Your task to perform on an android device: move an email to a new category in the gmail app Image 0: 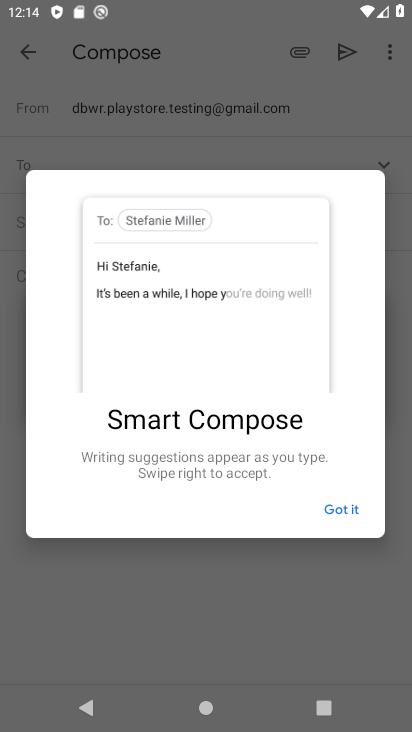
Step 0: press home button
Your task to perform on an android device: move an email to a new category in the gmail app Image 1: 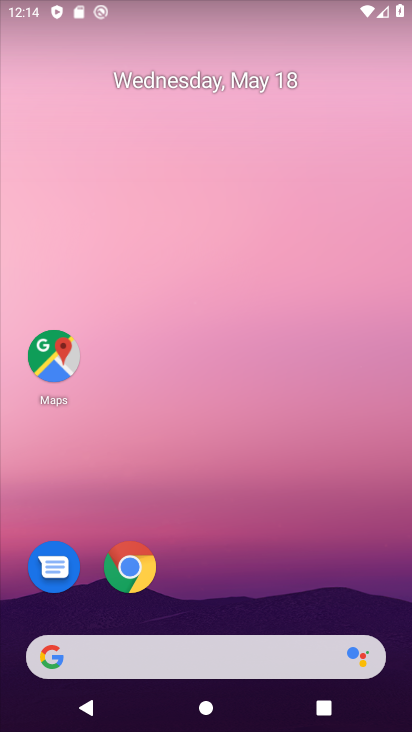
Step 1: drag from (373, 575) to (314, 225)
Your task to perform on an android device: move an email to a new category in the gmail app Image 2: 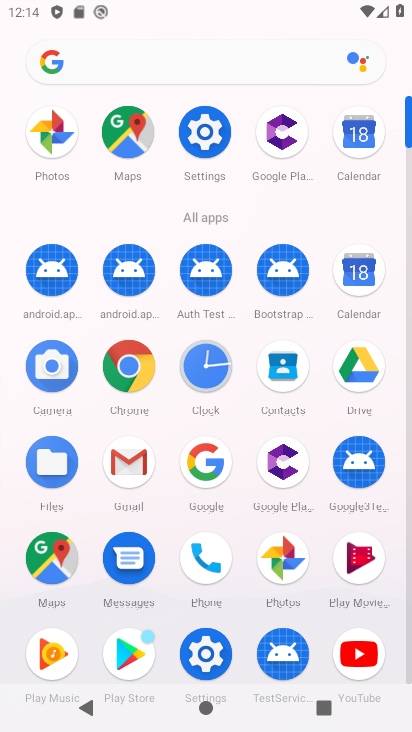
Step 2: click (124, 464)
Your task to perform on an android device: move an email to a new category in the gmail app Image 3: 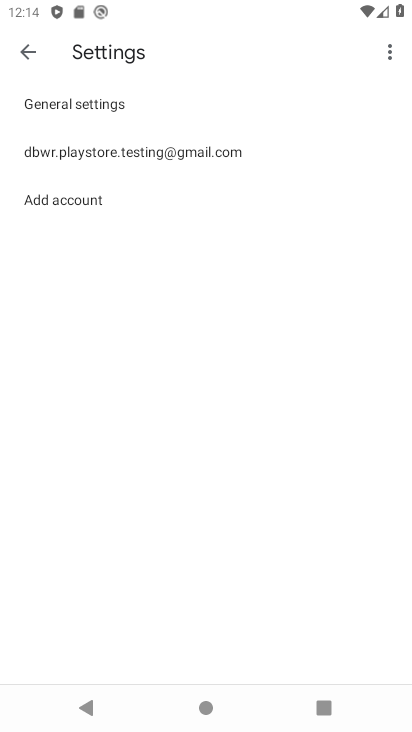
Step 3: click (214, 144)
Your task to perform on an android device: move an email to a new category in the gmail app Image 4: 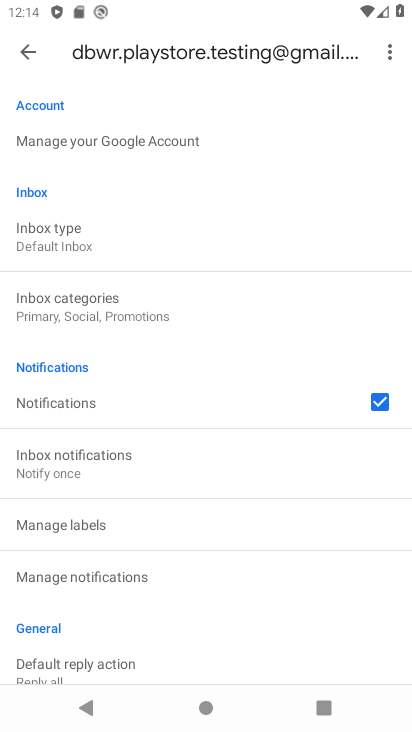
Step 4: click (33, 51)
Your task to perform on an android device: move an email to a new category in the gmail app Image 5: 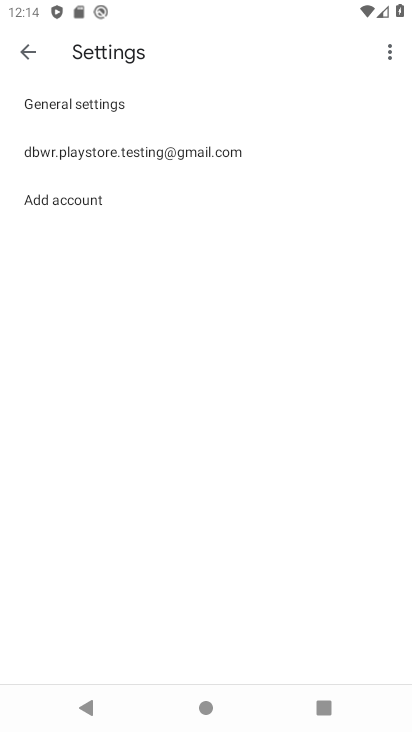
Step 5: click (32, 50)
Your task to perform on an android device: move an email to a new category in the gmail app Image 6: 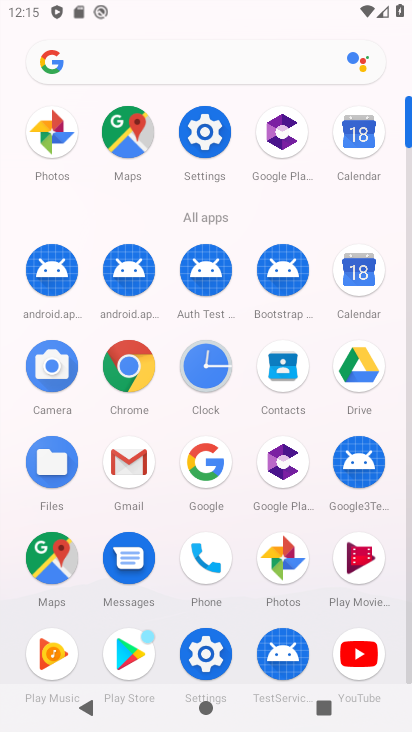
Step 6: click (134, 465)
Your task to perform on an android device: move an email to a new category in the gmail app Image 7: 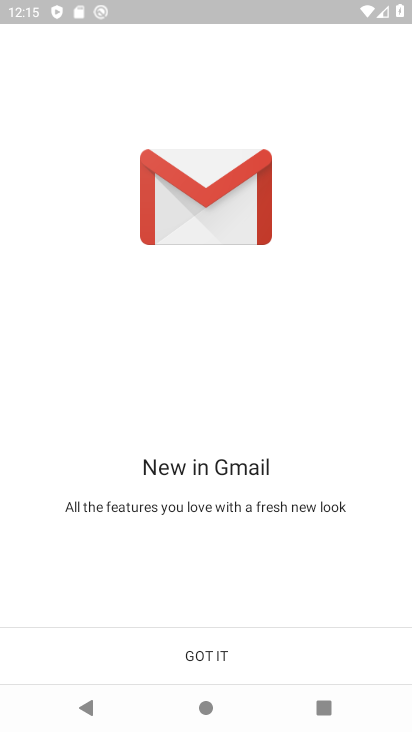
Step 7: click (209, 649)
Your task to perform on an android device: move an email to a new category in the gmail app Image 8: 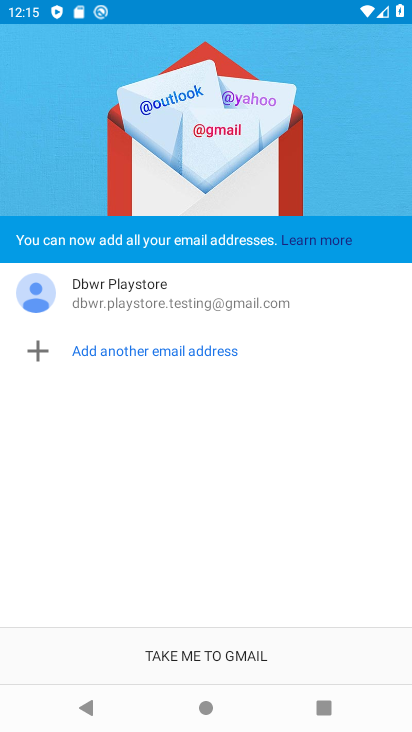
Step 8: click (211, 645)
Your task to perform on an android device: move an email to a new category in the gmail app Image 9: 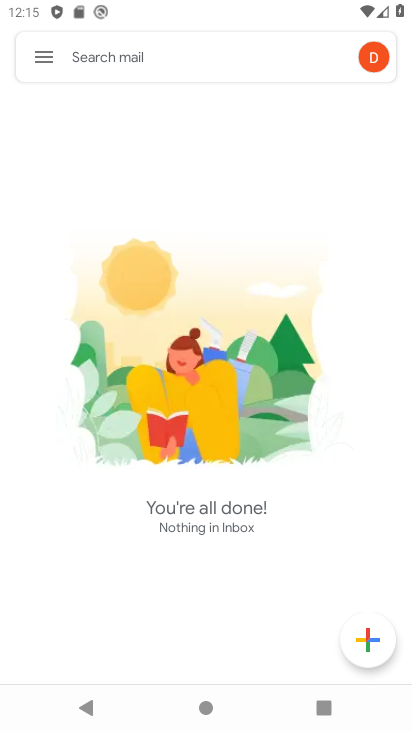
Step 9: click (44, 69)
Your task to perform on an android device: move an email to a new category in the gmail app Image 10: 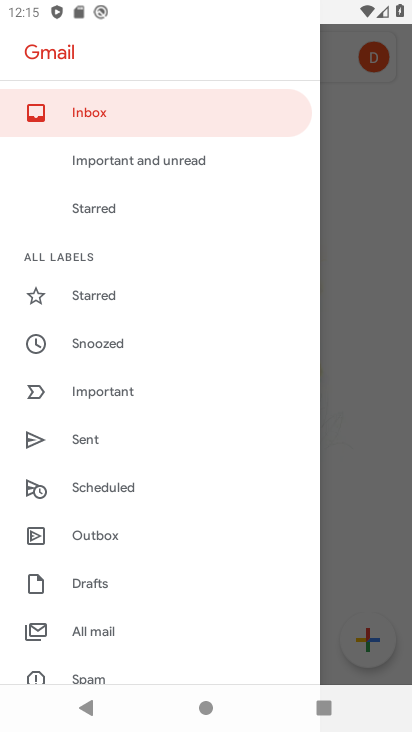
Step 10: drag from (157, 593) to (169, 409)
Your task to perform on an android device: move an email to a new category in the gmail app Image 11: 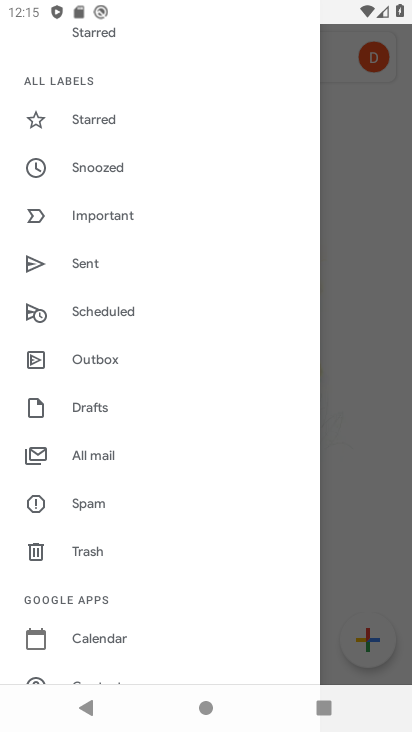
Step 11: click (134, 447)
Your task to perform on an android device: move an email to a new category in the gmail app Image 12: 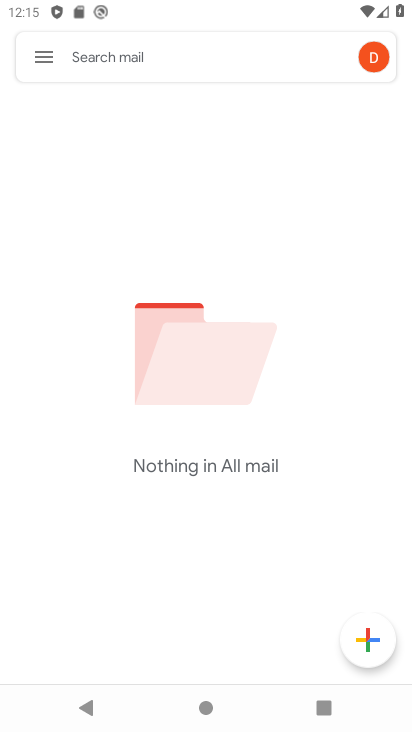
Step 12: task complete